Your task to perform on an android device: toggle wifi Image 0: 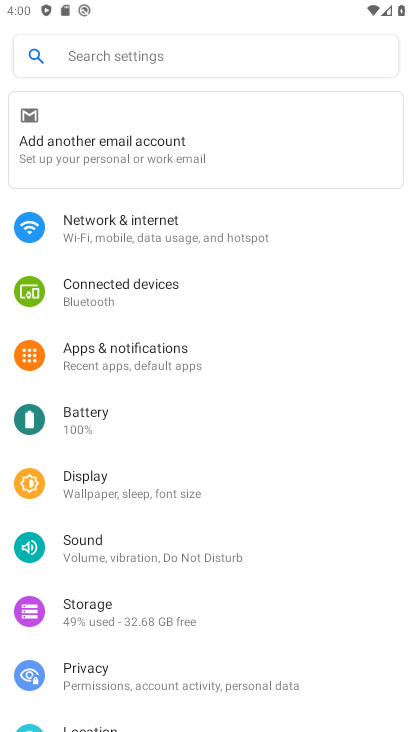
Step 0: press home button
Your task to perform on an android device: toggle wifi Image 1: 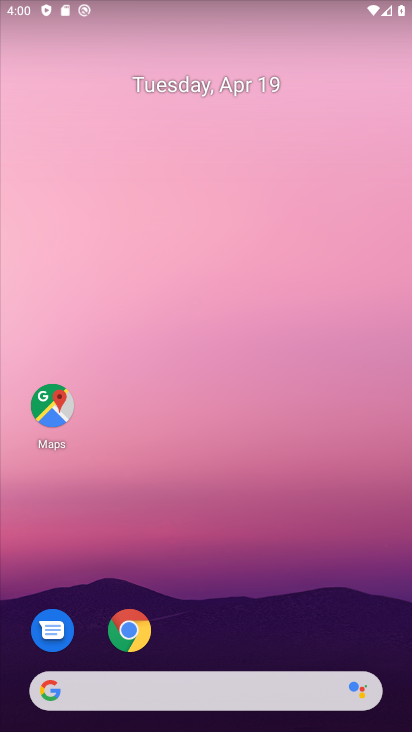
Step 1: drag from (228, 626) to (226, 154)
Your task to perform on an android device: toggle wifi Image 2: 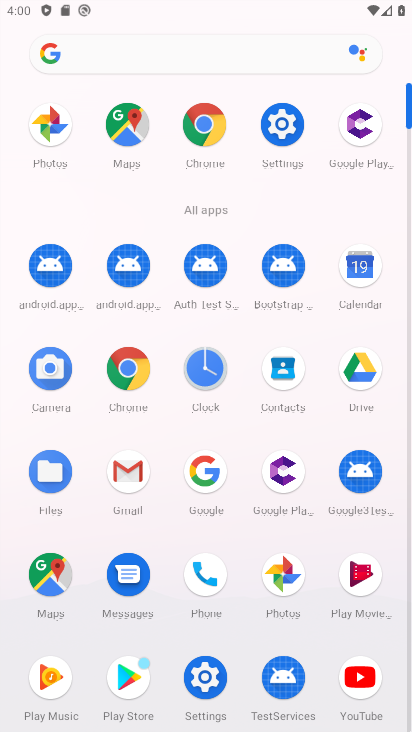
Step 2: click (261, 121)
Your task to perform on an android device: toggle wifi Image 3: 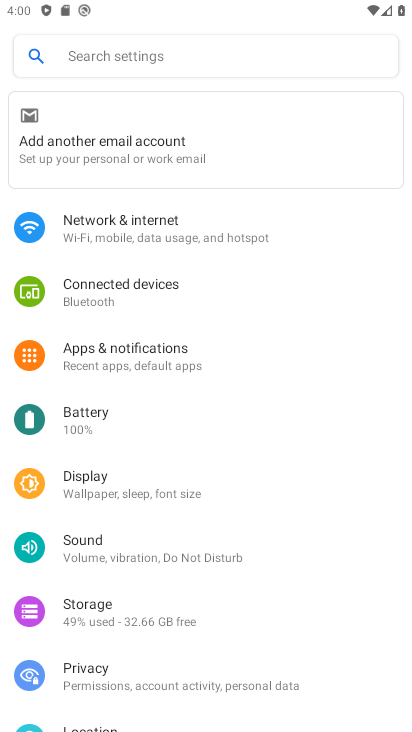
Step 3: click (134, 207)
Your task to perform on an android device: toggle wifi Image 4: 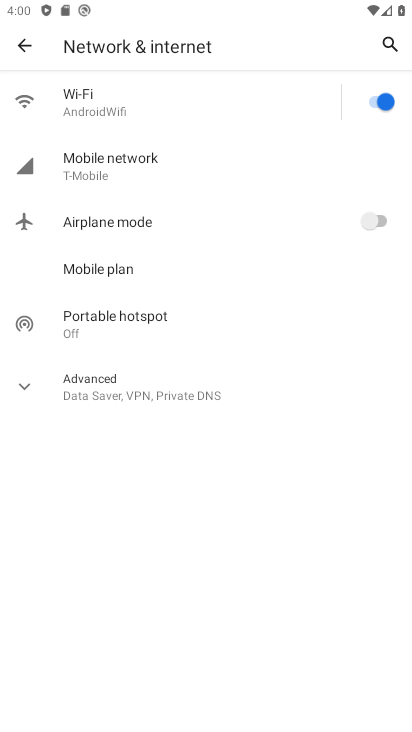
Step 4: click (370, 100)
Your task to perform on an android device: toggle wifi Image 5: 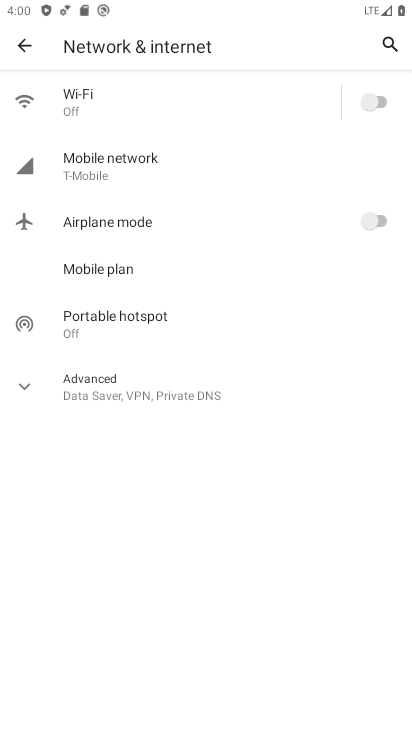
Step 5: task complete